Your task to perform on an android device: What's on my calendar today? Image 0: 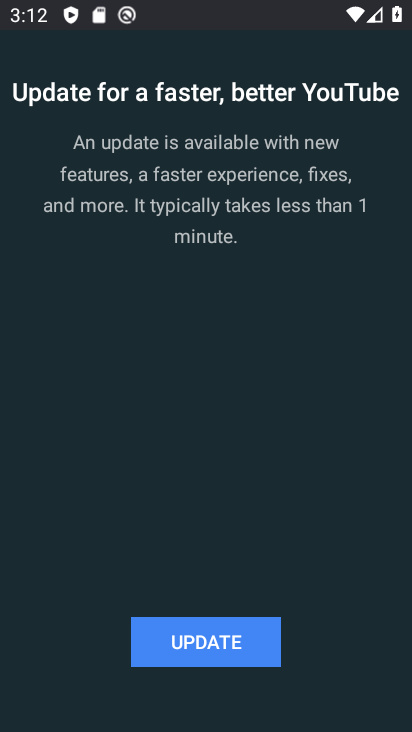
Step 0: press back button
Your task to perform on an android device: What's on my calendar today? Image 1: 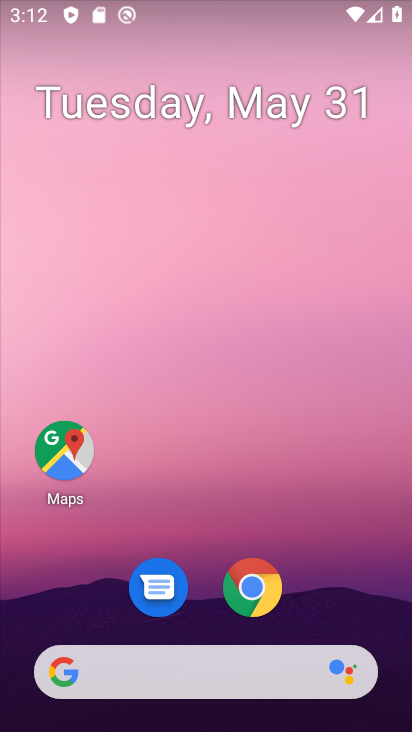
Step 1: drag from (332, 615) to (337, 1)
Your task to perform on an android device: What's on my calendar today? Image 2: 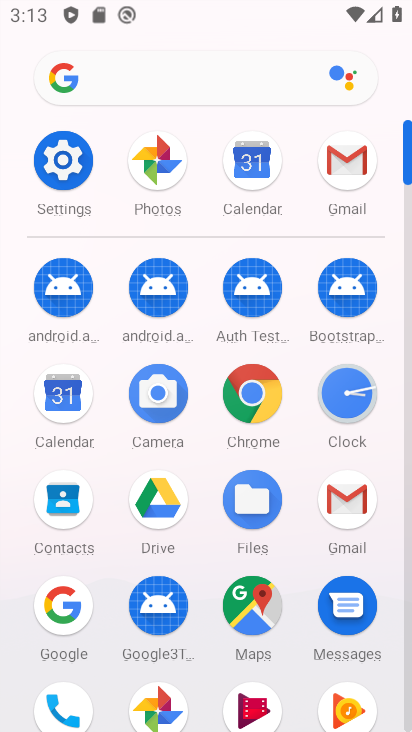
Step 2: click (57, 403)
Your task to perform on an android device: What's on my calendar today? Image 3: 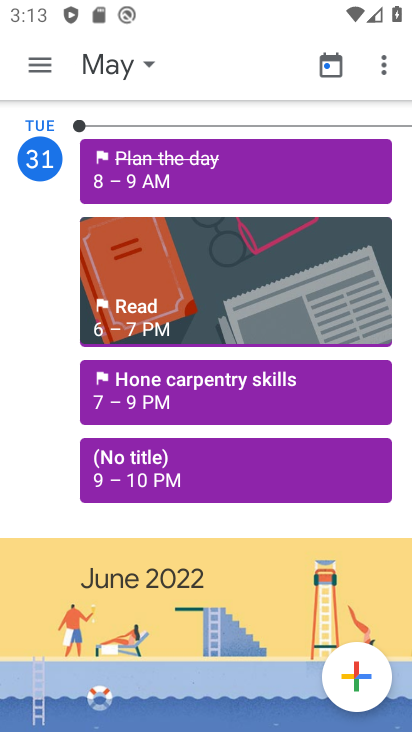
Step 3: click (104, 62)
Your task to perform on an android device: What's on my calendar today? Image 4: 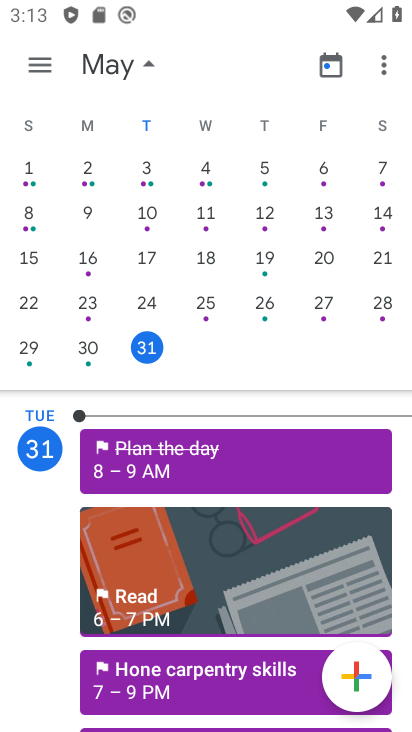
Step 4: click (144, 335)
Your task to perform on an android device: What's on my calendar today? Image 5: 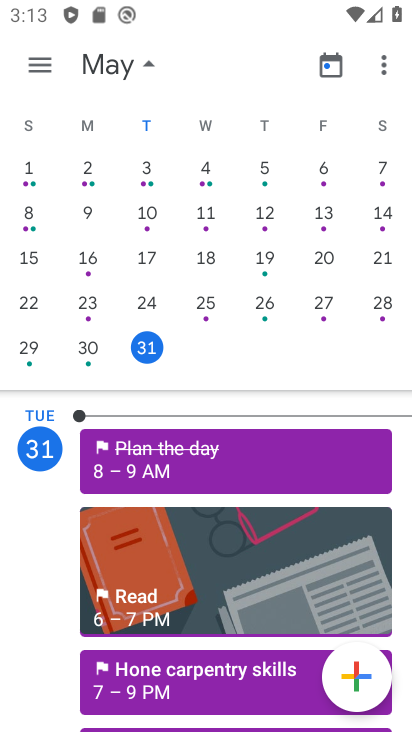
Step 5: task complete